Your task to perform on an android device: check data usage Image 0: 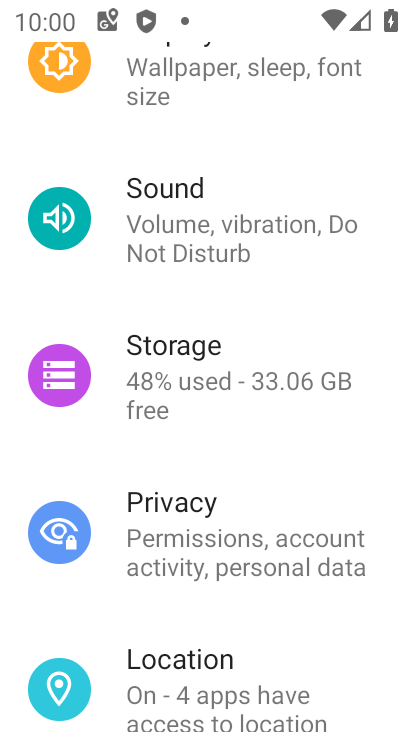
Step 0: drag from (253, 136) to (278, 615)
Your task to perform on an android device: check data usage Image 1: 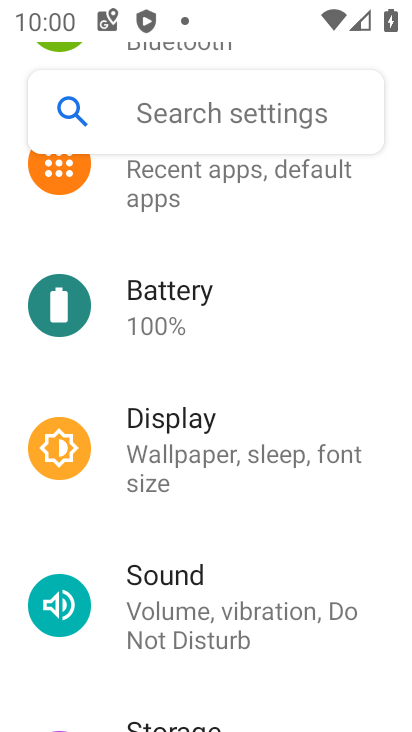
Step 1: drag from (255, 199) to (256, 593)
Your task to perform on an android device: check data usage Image 2: 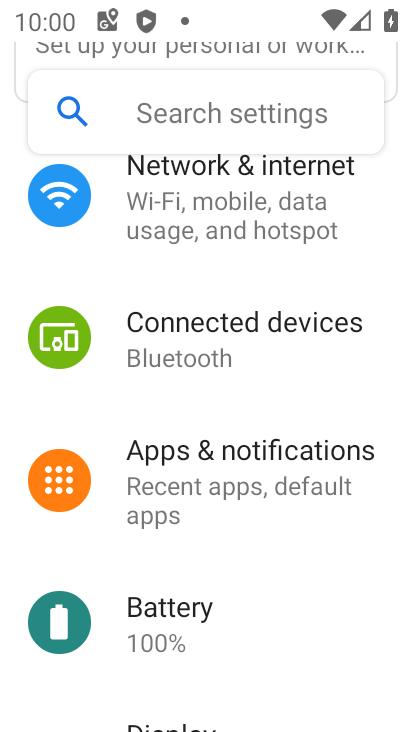
Step 2: drag from (230, 259) to (281, 531)
Your task to perform on an android device: check data usage Image 3: 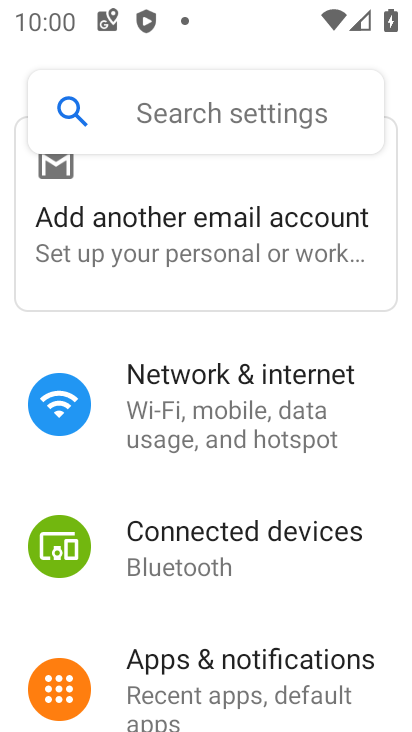
Step 3: drag from (185, 699) to (205, 399)
Your task to perform on an android device: check data usage Image 4: 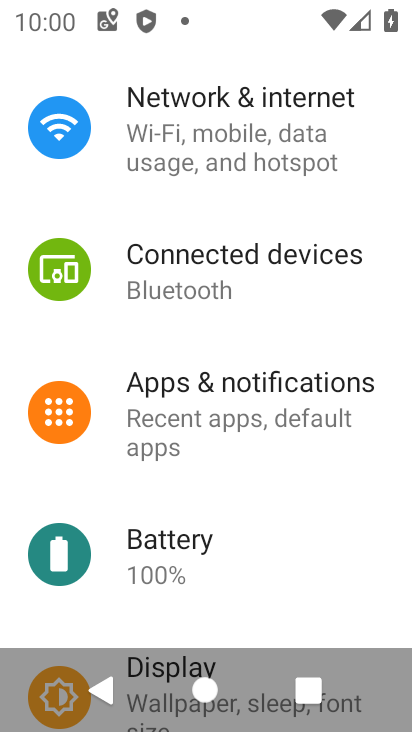
Step 4: click (200, 139)
Your task to perform on an android device: check data usage Image 5: 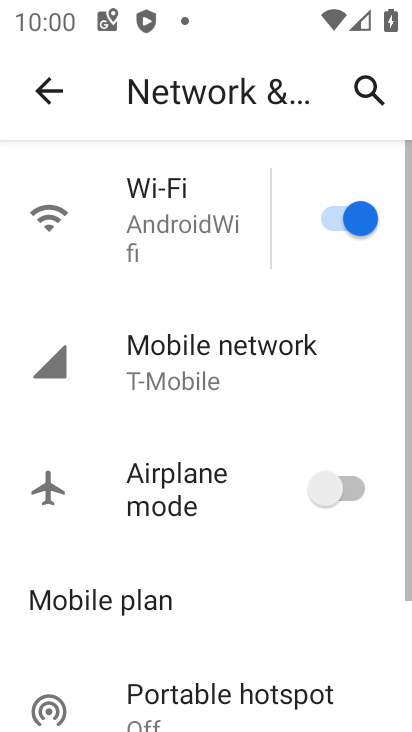
Step 5: click (173, 381)
Your task to perform on an android device: check data usage Image 6: 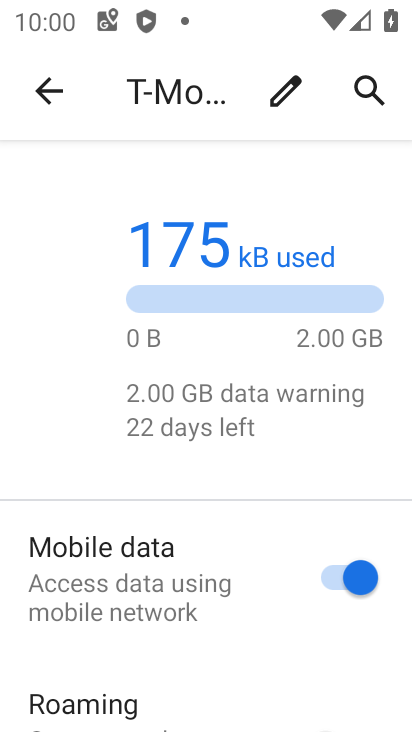
Step 6: task complete